Your task to perform on an android device: toggle translation in the chrome app Image 0: 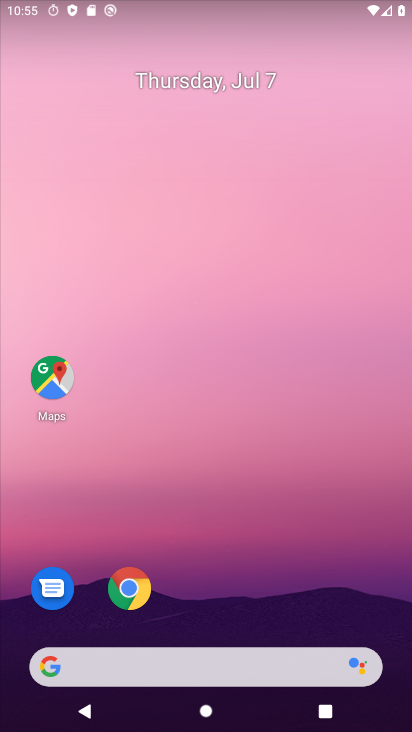
Step 0: drag from (295, 606) to (318, 76)
Your task to perform on an android device: toggle translation in the chrome app Image 1: 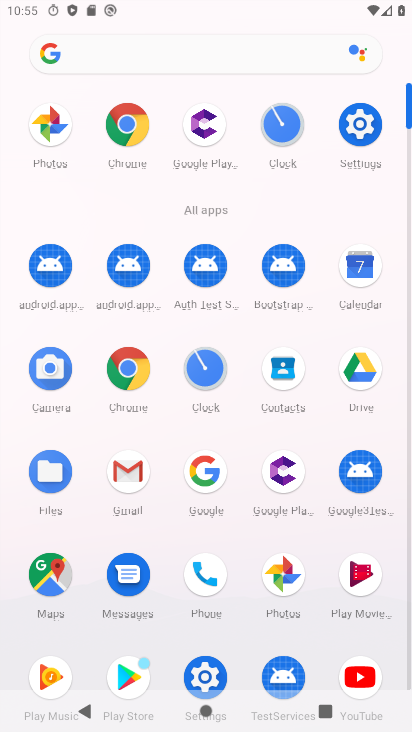
Step 1: click (125, 119)
Your task to perform on an android device: toggle translation in the chrome app Image 2: 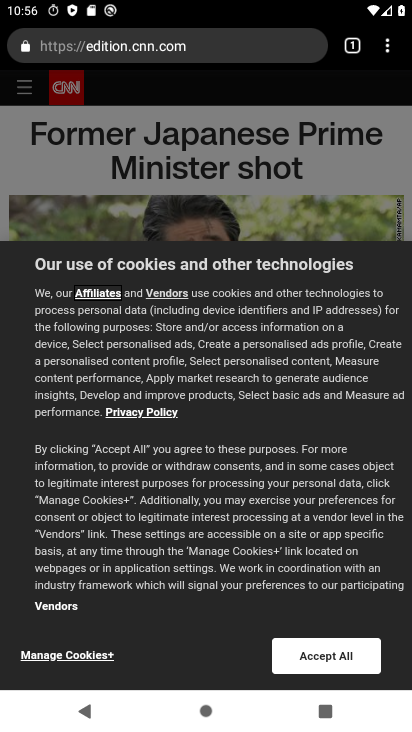
Step 2: drag from (386, 51) to (232, 499)
Your task to perform on an android device: toggle translation in the chrome app Image 3: 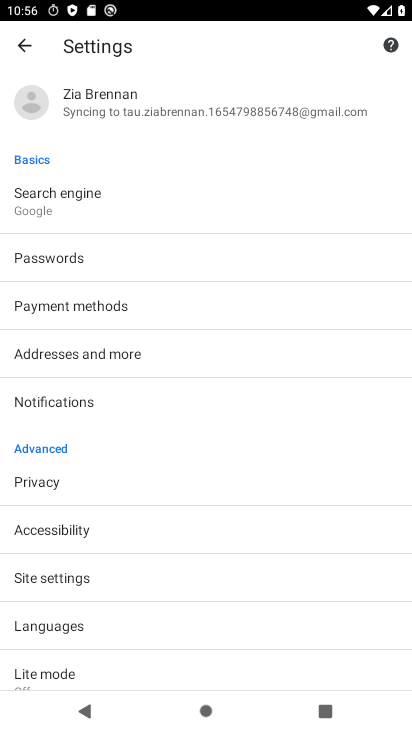
Step 3: click (72, 623)
Your task to perform on an android device: toggle translation in the chrome app Image 4: 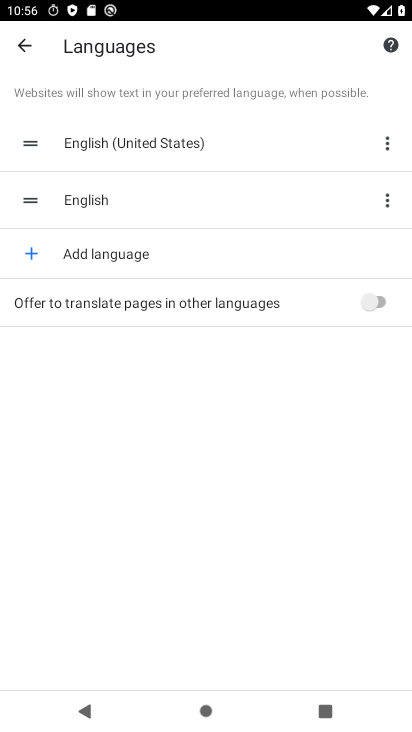
Step 4: click (388, 289)
Your task to perform on an android device: toggle translation in the chrome app Image 5: 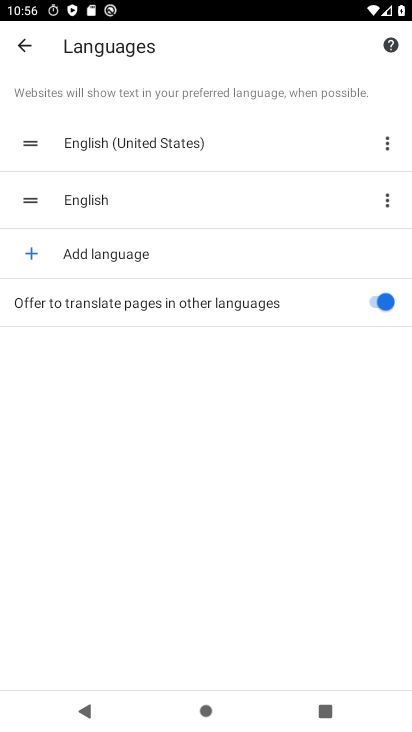
Step 5: task complete